Your task to perform on an android device: When is my next meeting? Image 0: 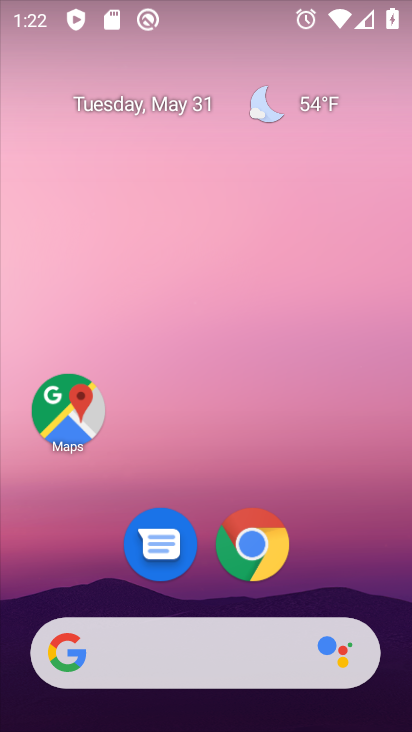
Step 0: drag from (346, 588) to (344, 22)
Your task to perform on an android device: When is my next meeting? Image 1: 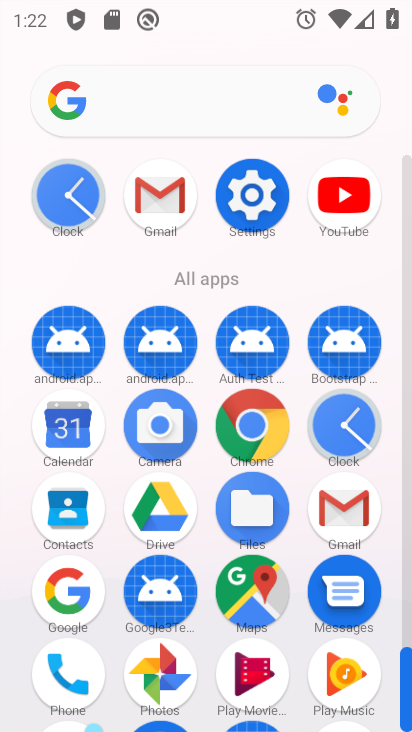
Step 1: click (64, 420)
Your task to perform on an android device: When is my next meeting? Image 2: 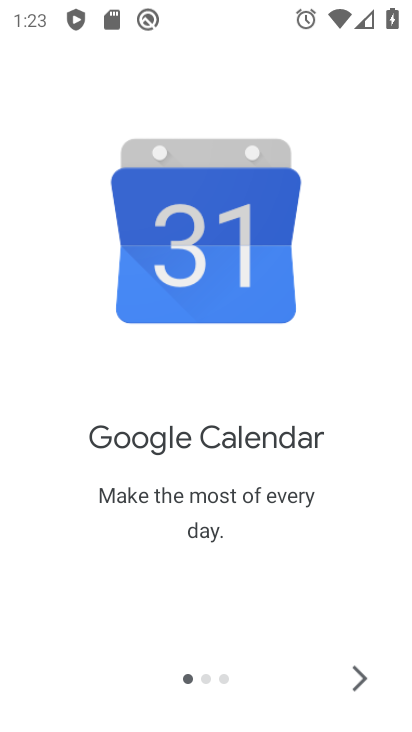
Step 2: click (365, 677)
Your task to perform on an android device: When is my next meeting? Image 3: 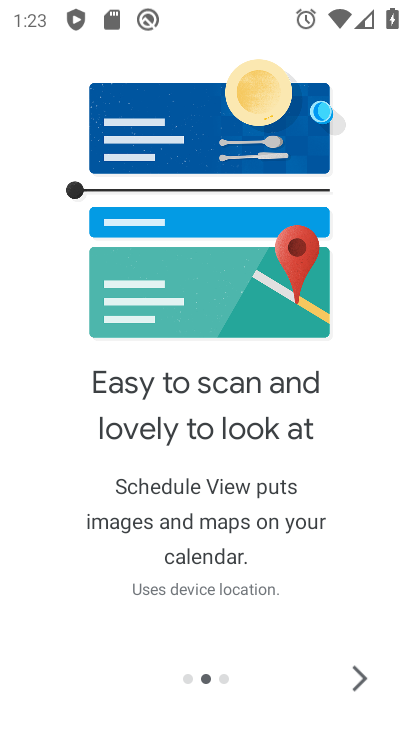
Step 3: click (358, 673)
Your task to perform on an android device: When is my next meeting? Image 4: 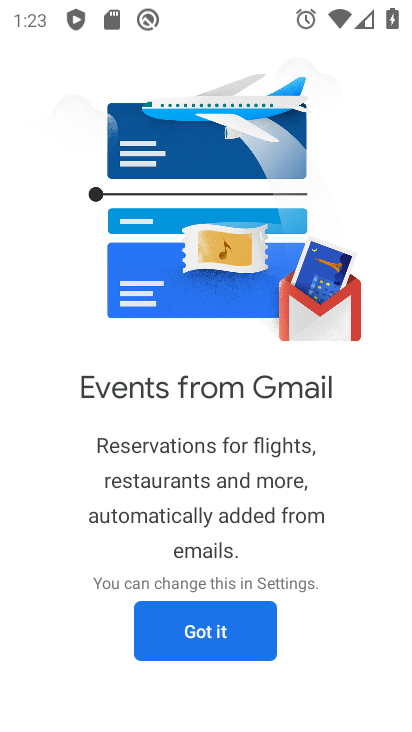
Step 4: click (207, 621)
Your task to perform on an android device: When is my next meeting? Image 5: 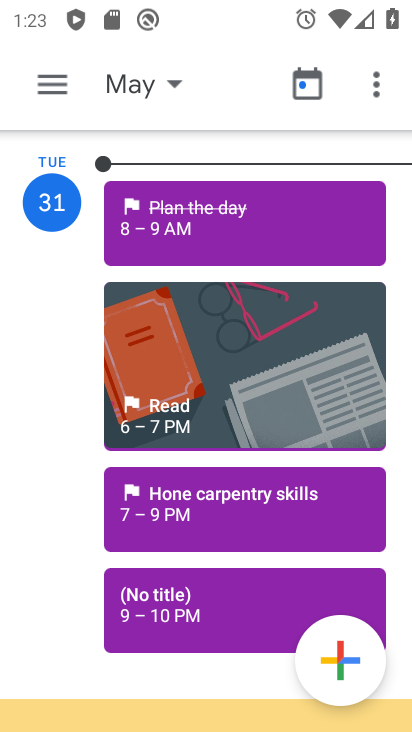
Step 5: click (141, 83)
Your task to perform on an android device: When is my next meeting? Image 6: 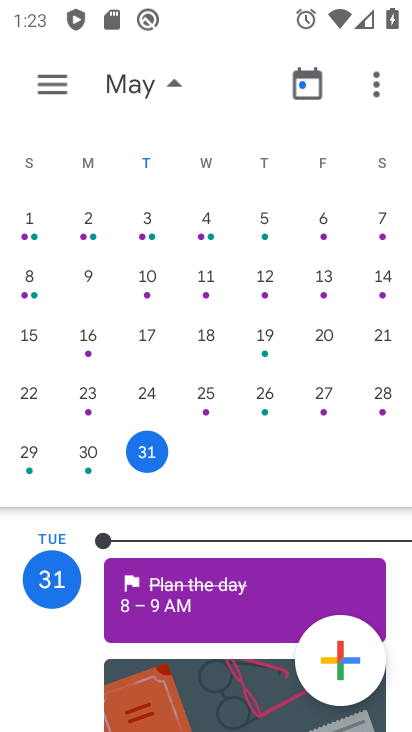
Step 6: click (155, 439)
Your task to perform on an android device: When is my next meeting? Image 7: 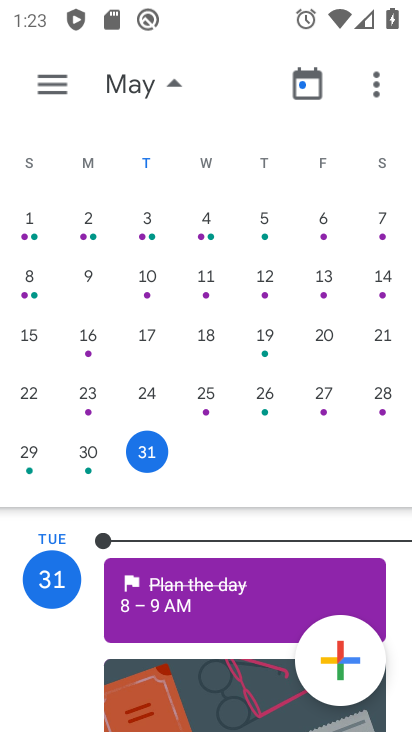
Step 7: task complete